Your task to perform on an android device: Open Reddit.com Image 0: 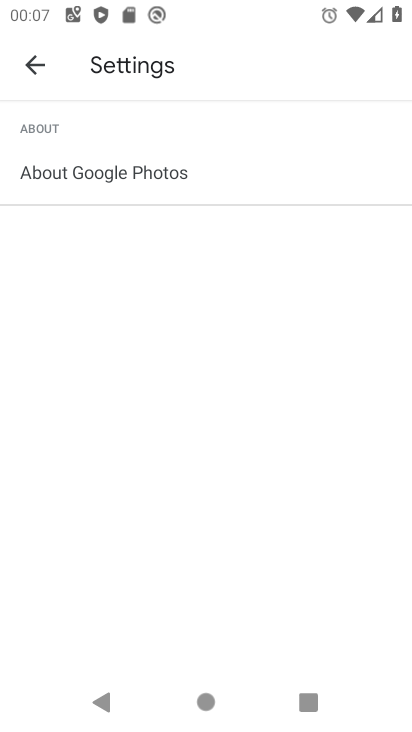
Step 0: press home button
Your task to perform on an android device: Open Reddit.com Image 1: 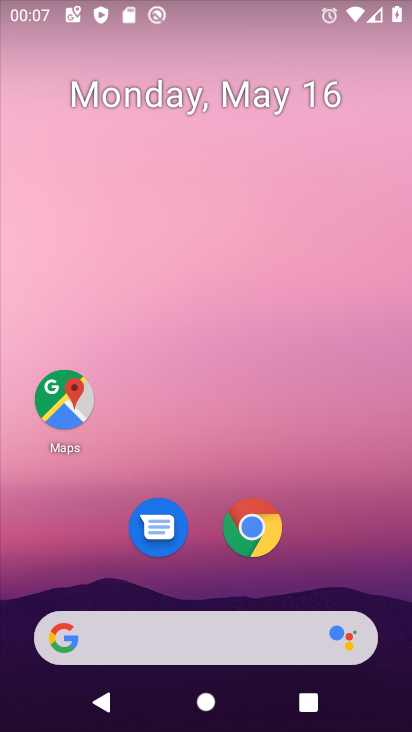
Step 1: click (263, 544)
Your task to perform on an android device: Open Reddit.com Image 2: 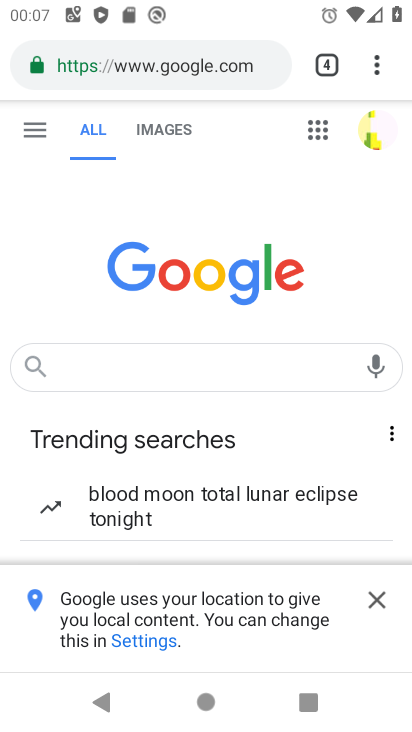
Step 2: click (222, 76)
Your task to perform on an android device: Open Reddit.com Image 3: 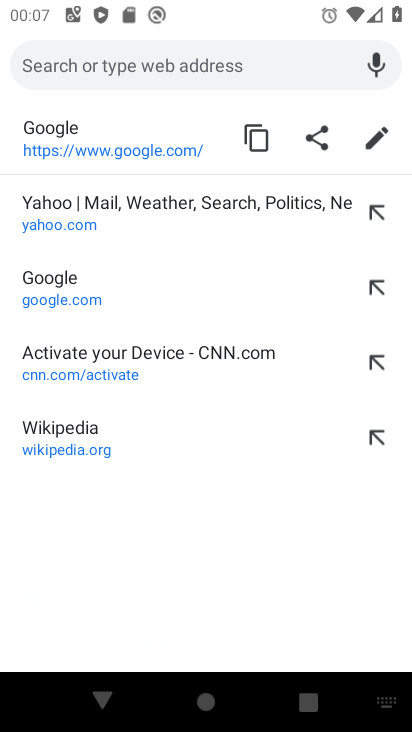
Step 3: type "reddit"
Your task to perform on an android device: Open Reddit.com Image 4: 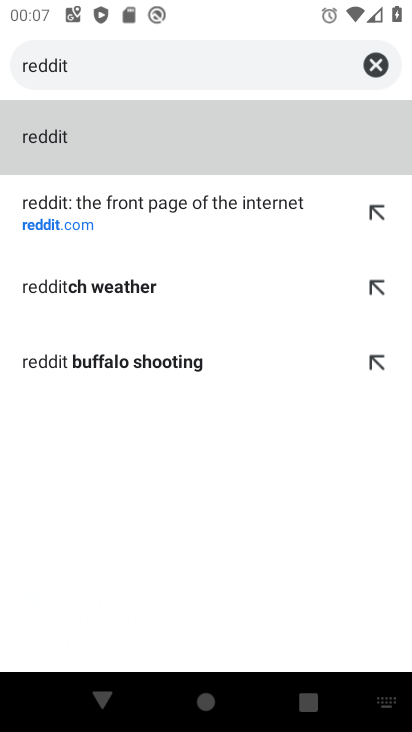
Step 4: click (163, 229)
Your task to perform on an android device: Open Reddit.com Image 5: 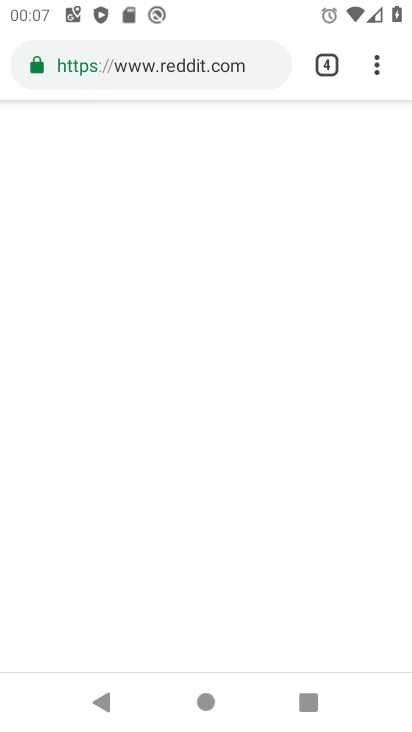
Step 5: task complete